Your task to perform on an android device: open a new tab in the chrome app Image 0: 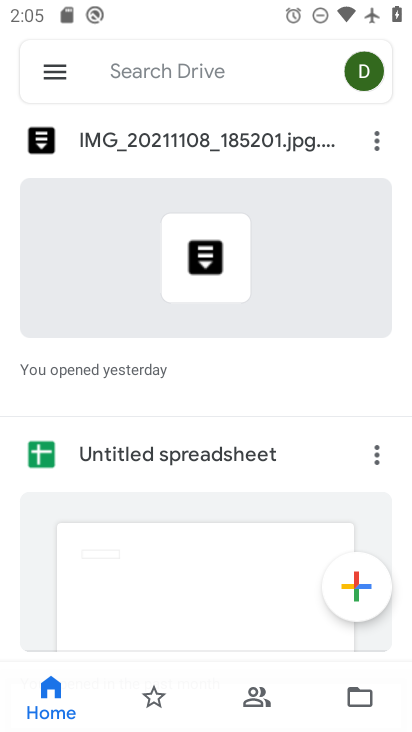
Step 0: press home button
Your task to perform on an android device: open a new tab in the chrome app Image 1: 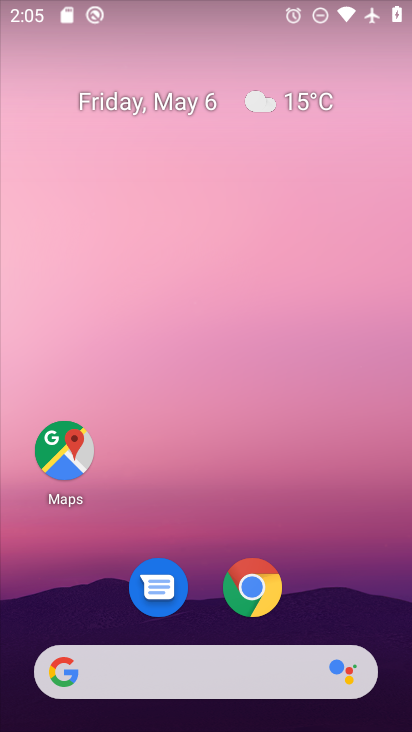
Step 1: click (265, 591)
Your task to perform on an android device: open a new tab in the chrome app Image 2: 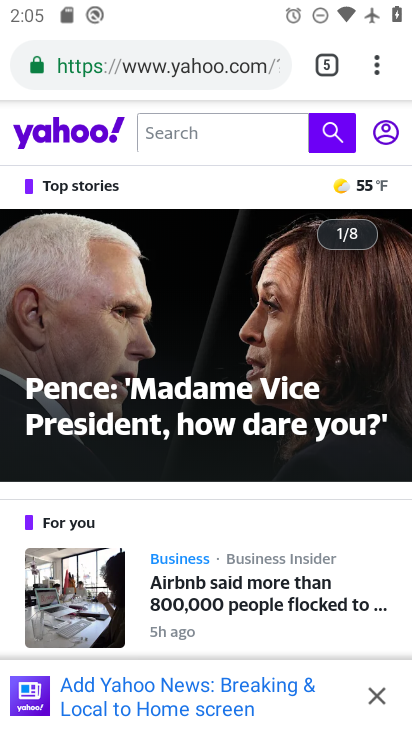
Step 2: click (330, 65)
Your task to perform on an android device: open a new tab in the chrome app Image 3: 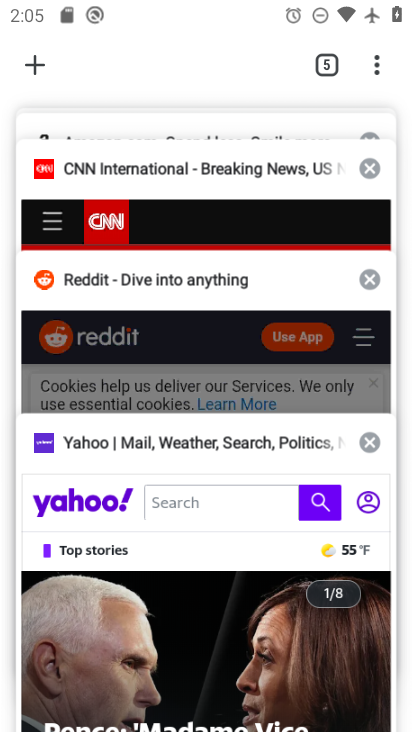
Step 3: click (30, 67)
Your task to perform on an android device: open a new tab in the chrome app Image 4: 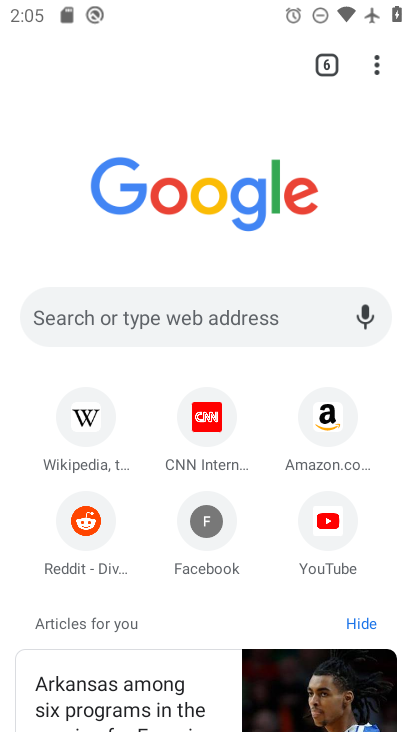
Step 4: task complete